Your task to perform on an android device: Search for Mexican restaurants on Maps Image 0: 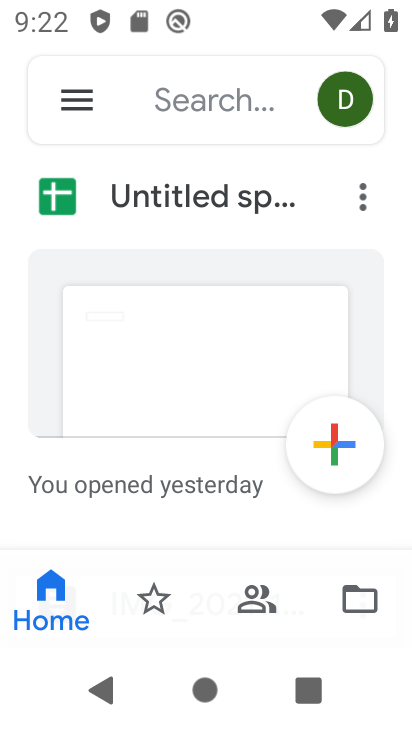
Step 0: press home button
Your task to perform on an android device: Search for Mexican restaurants on Maps Image 1: 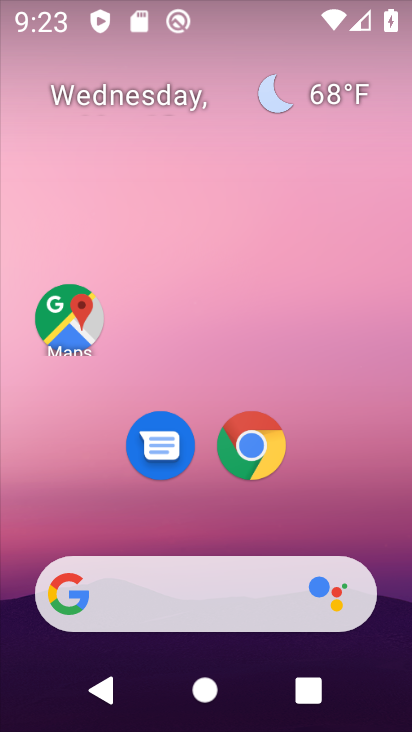
Step 1: drag from (340, 459) to (272, 156)
Your task to perform on an android device: Search for Mexican restaurants on Maps Image 2: 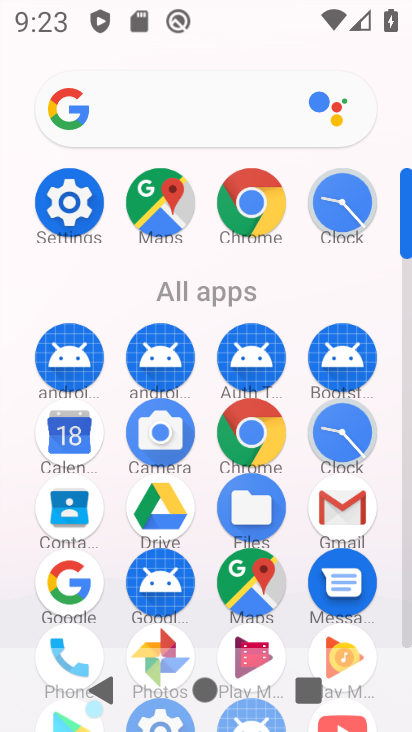
Step 2: click (155, 214)
Your task to perform on an android device: Search for Mexican restaurants on Maps Image 3: 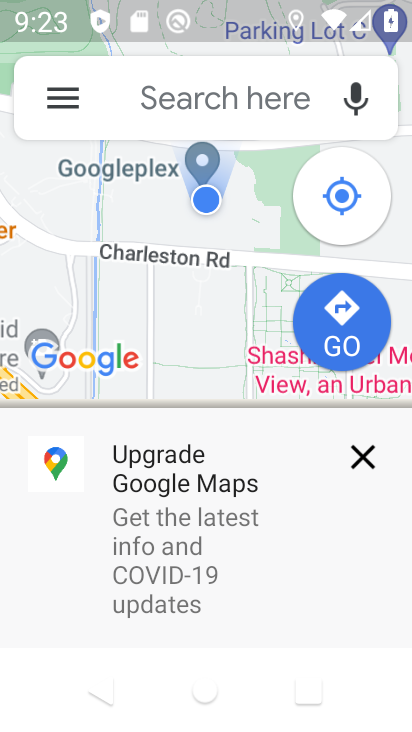
Step 3: click (200, 107)
Your task to perform on an android device: Search for Mexican restaurants on Maps Image 4: 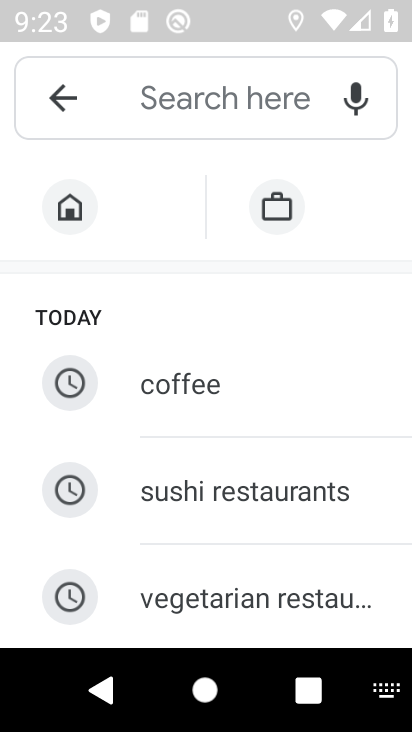
Step 4: type "mexican resturents"
Your task to perform on an android device: Search for Mexican restaurants on Maps Image 5: 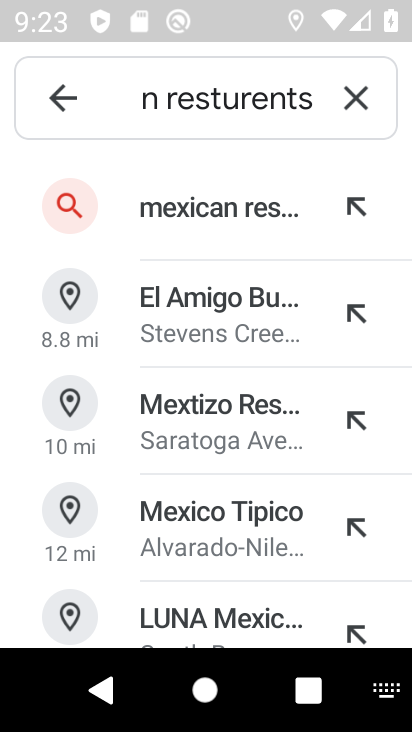
Step 5: click (245, 218)
Your task to perform on an android device: Search for Mexican restaurants on Maps Image 6: 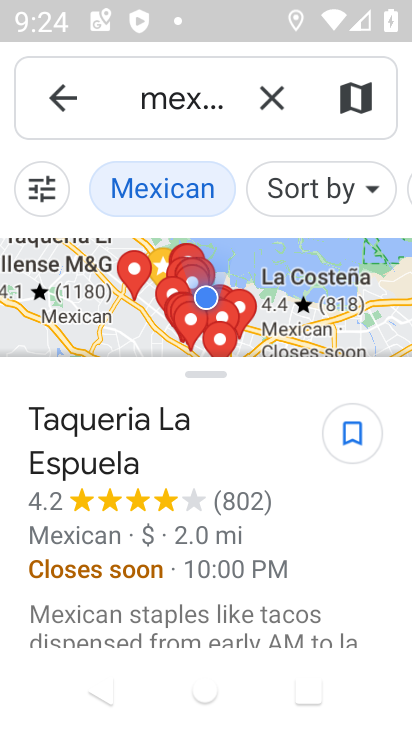
Step 6: task complete